Your task to perform on an android device: Go to Maps Image 0: 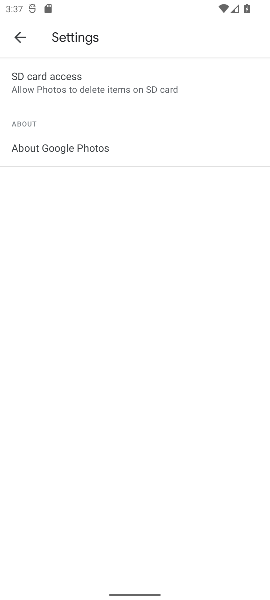
Step 0: press home button
Your task to perform on an android device: Go to Maps Image 1: 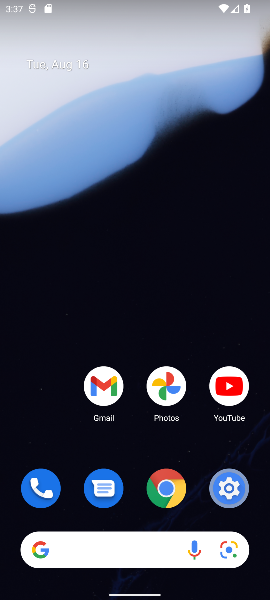
Step 1: drag from (150, 333) to (175, 56)
Your task to perform on an android device: Go to Maps Image 2: 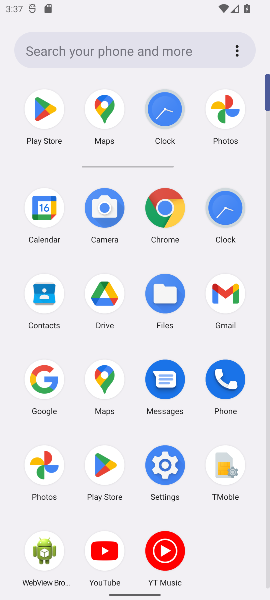
Step 2: click (102, 377)
Your task to perform on an android device: Go to Maps Image 3: 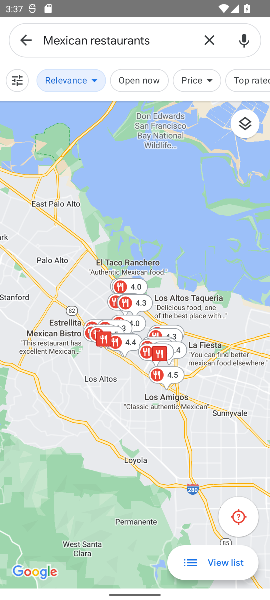
Step 3: task complete